Your task to perform on an android device: delete the emails in spam in the gmail app Image 0: 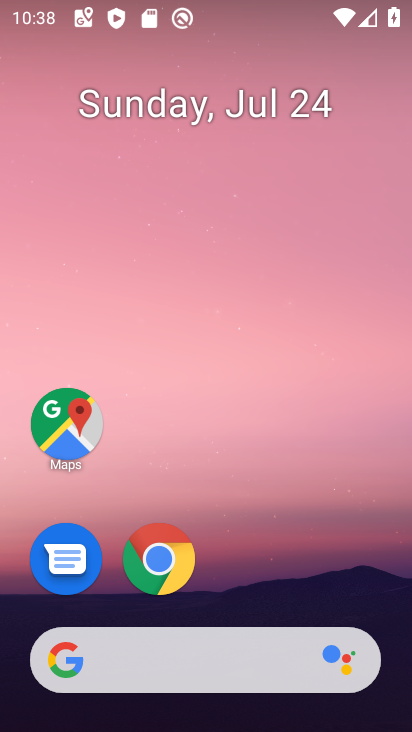
Step 0: drag from (266, 596) to (301, 11)
Your task to perform on an android device: delete the emails in spam in the gmail app Image 1: 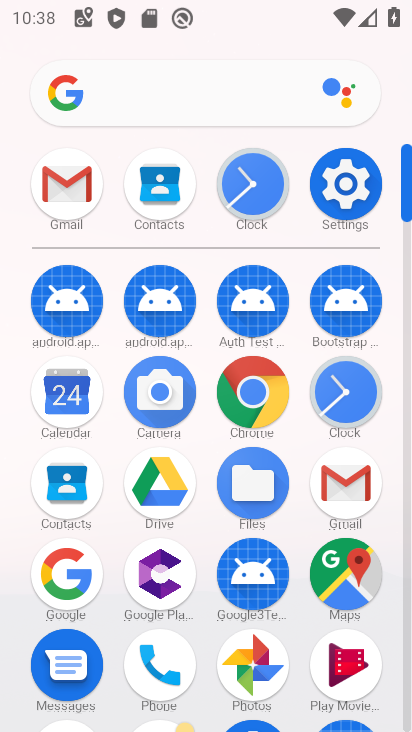
Step 1: click (85, 189)
Your task to perform on an android device: delete the emails in spam in the gmail app Image 2: 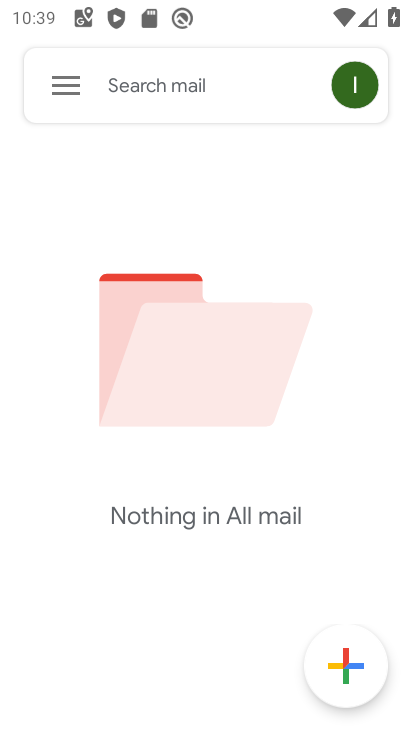
Step 2: click (72, 92)
Your task to perform on an android device: delete the emails in spam in the gmail app Image 3: 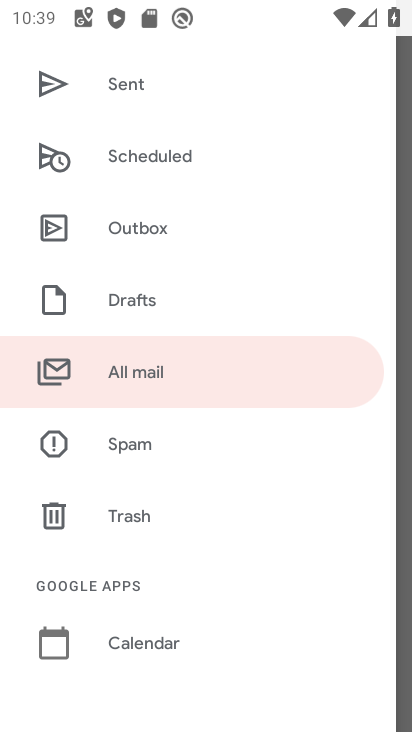
Step 3: click (173, 364)
Your task to perform on an android device: delete the emails in spam in the gmail app Image 4: 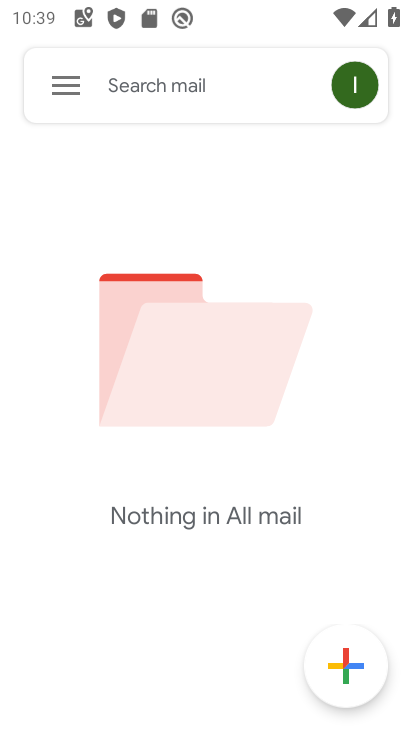
Step 4: click (65, 79)
Your task to perform on an android device: delete the emails in spam in the gmail app Image 5: 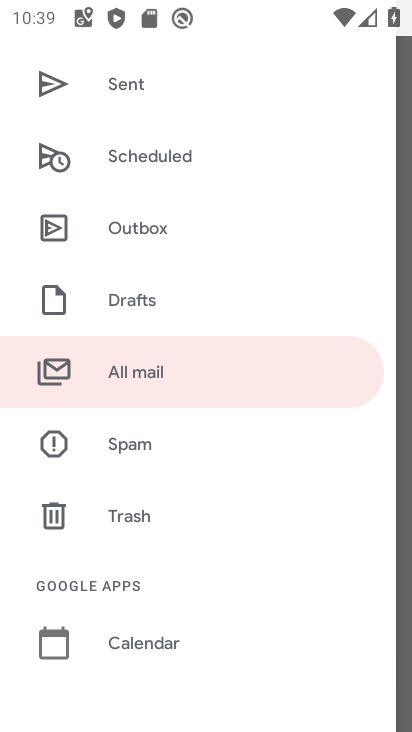
Step 5: click (152, 447)
Your task to perform on an android device: delete the emails in spam in the gmail app Image 6: 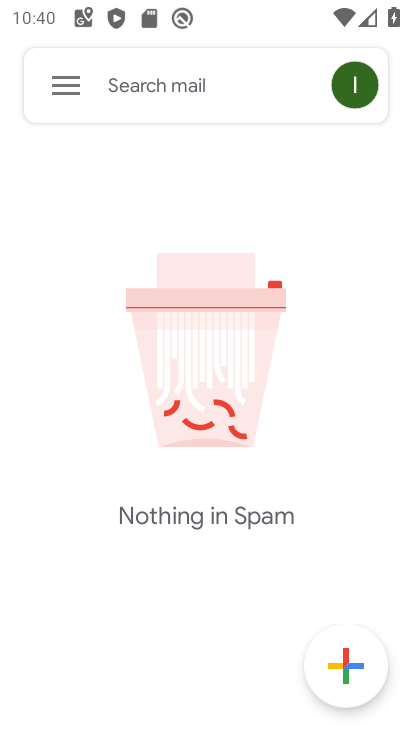
Step 6: task complete